Your task to perform on an android device: open a new tab in the chrome app Image 0: 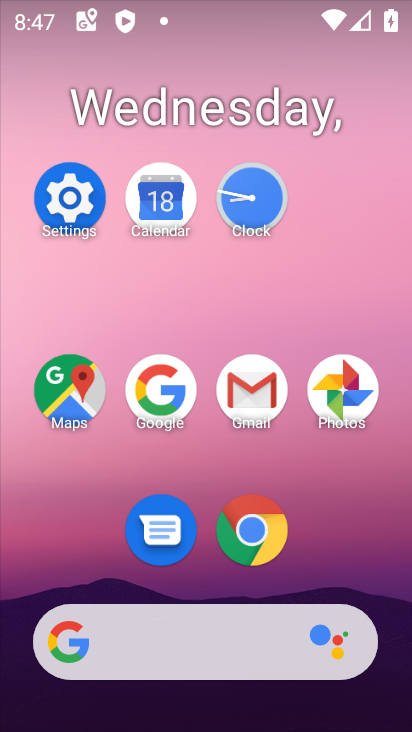
Step 0: click (269, 532)
Your task to perform on an android device: open a new tab in the chrome app Image 1: 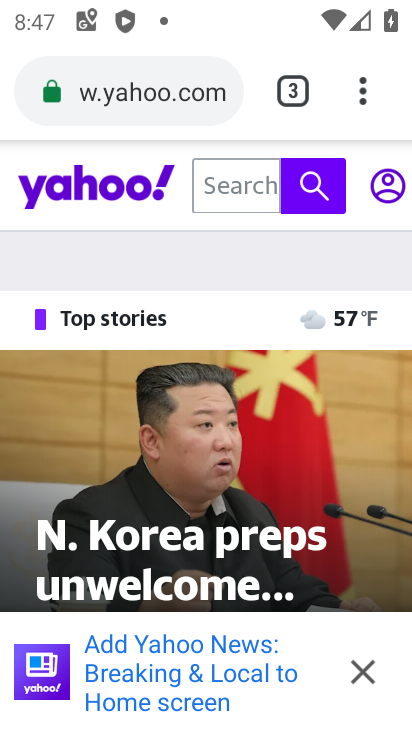
Step 1: click (303, 108)
Your task to perform on an android device: open a new tab in the chrome app Image 2: 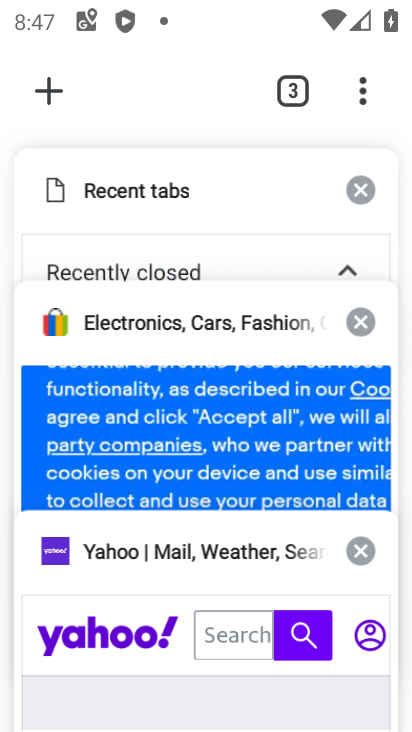
Step 2: click (55, 92)
Your task to perform on an android device: open a new tab in the chrome app Image 3: 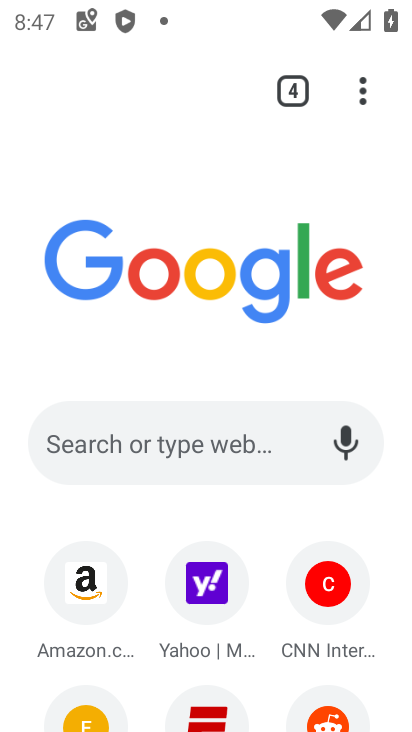
Step 3: task complete